Your task to perform on an android device: delete browsing data in the chrome app Image 0: 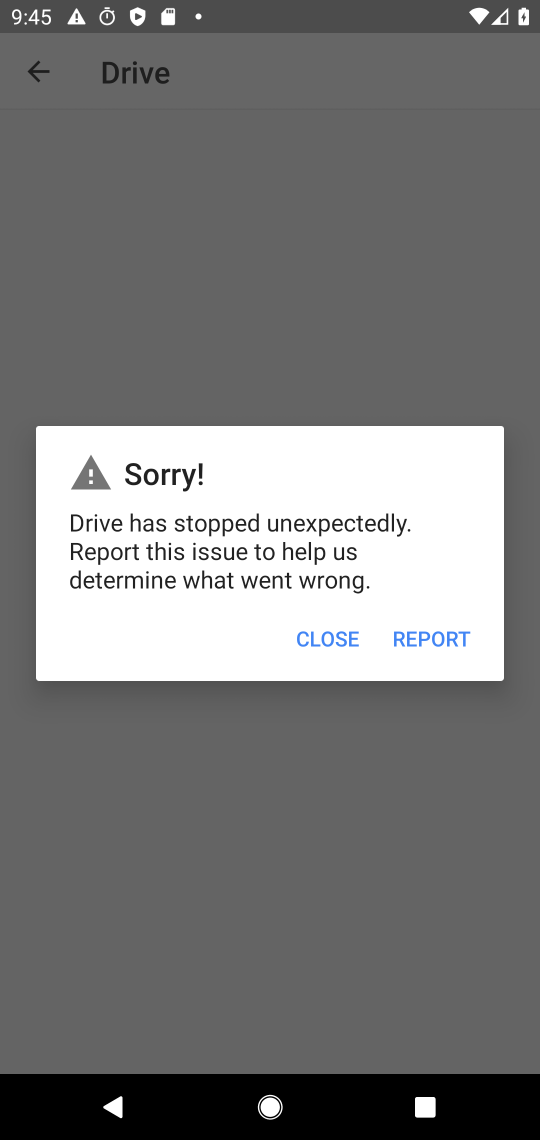
Step 0: press home button
Your task to perform on an android device: delete browsing data in the chrome app Image 1: 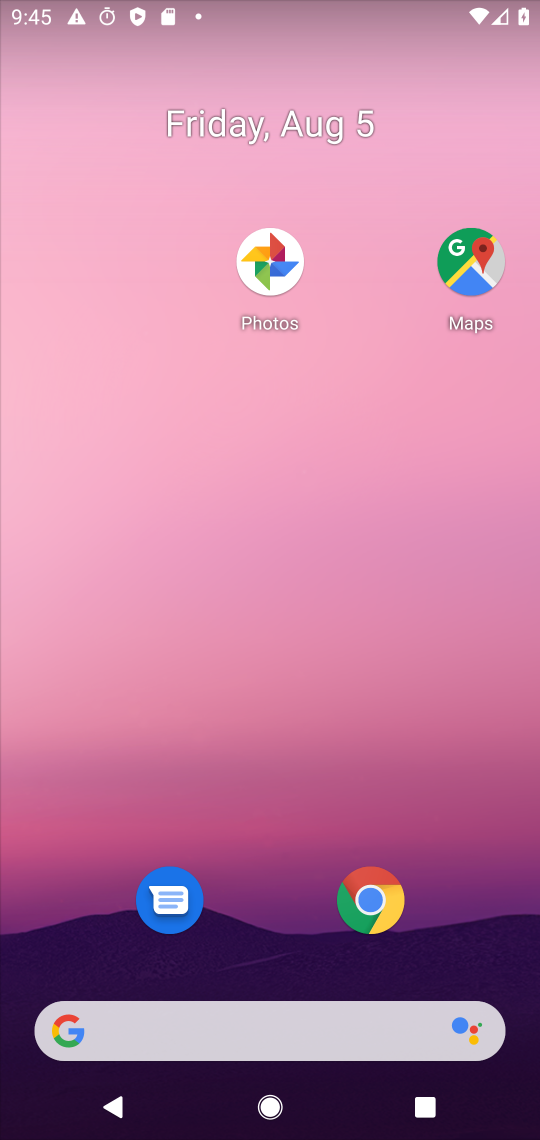
Step 1: click (359, 911)
Your task to perform on an android device: delete browsing data in the chrome app Image 2: 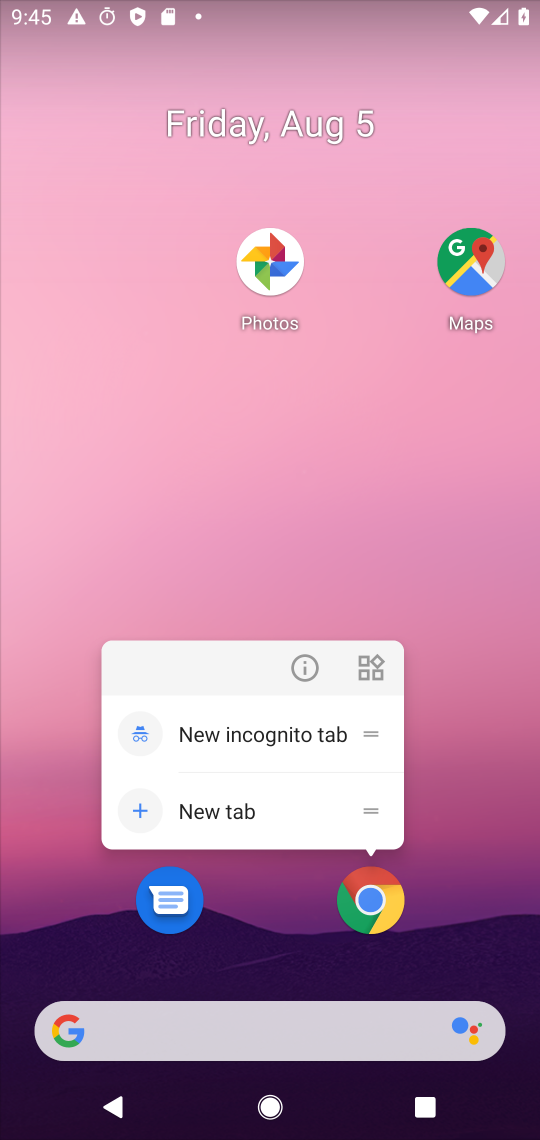
Step 2: click (359, 911)
Your task to perform on an android device: delete browsing data in the chrome app Image 3: 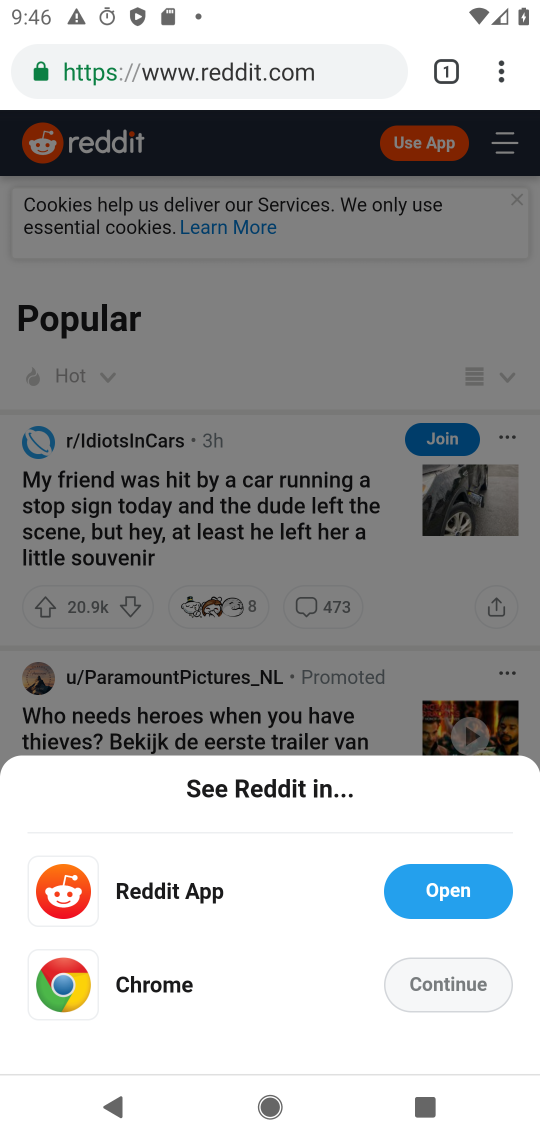
Step 3: click (507, 84)
Your task to perform on an android device: delete browsing data in the chrome app Image 4: 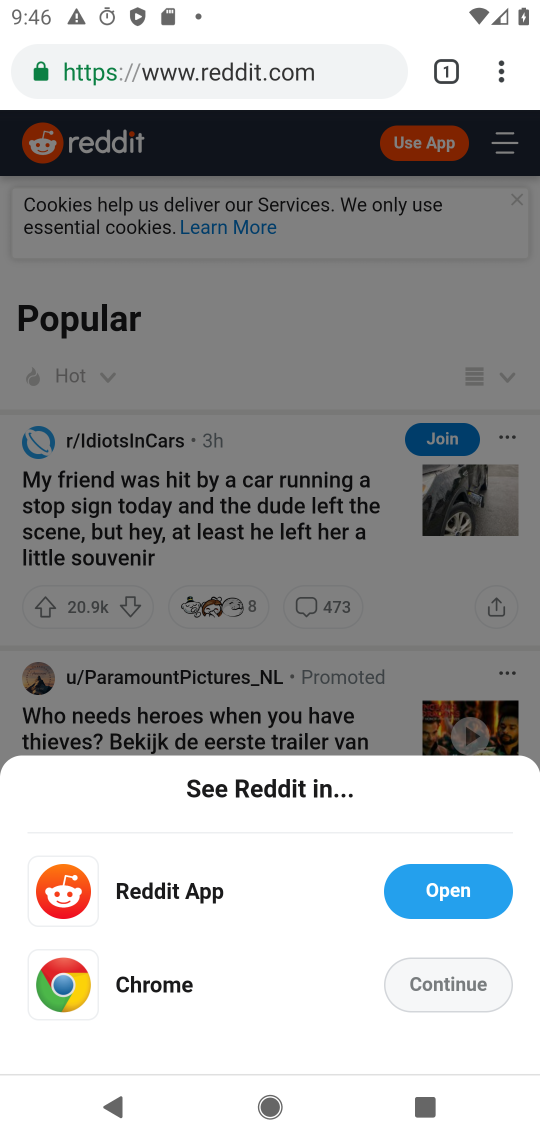
Step 4: click (503, 80)
Your task to perform on an android device: delete browsing data in the chrome app Image 5: 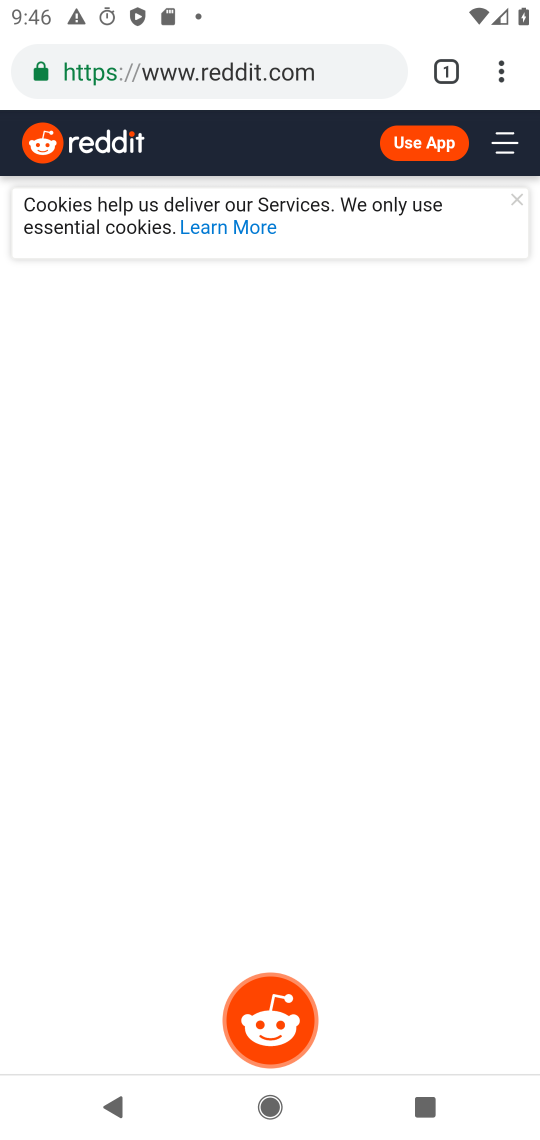
Step 5: click (503, 80)
Your task to perform on an android device: delete browsing data in the chrome app Image 6: 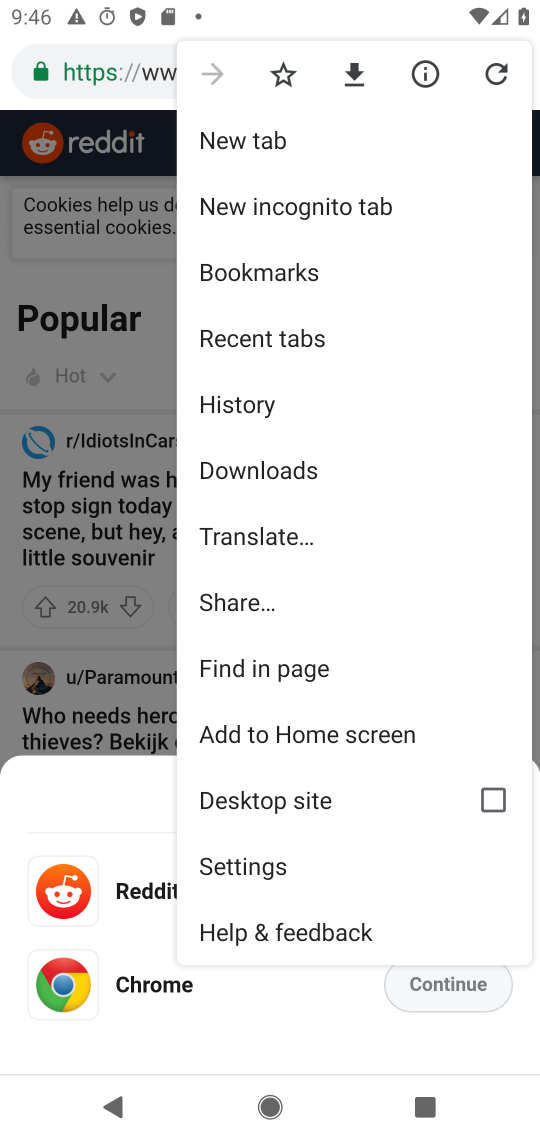
Step 6: click (258, 397)
Your task to perform on an android device: delete browsing data in the chrome app Image 7: 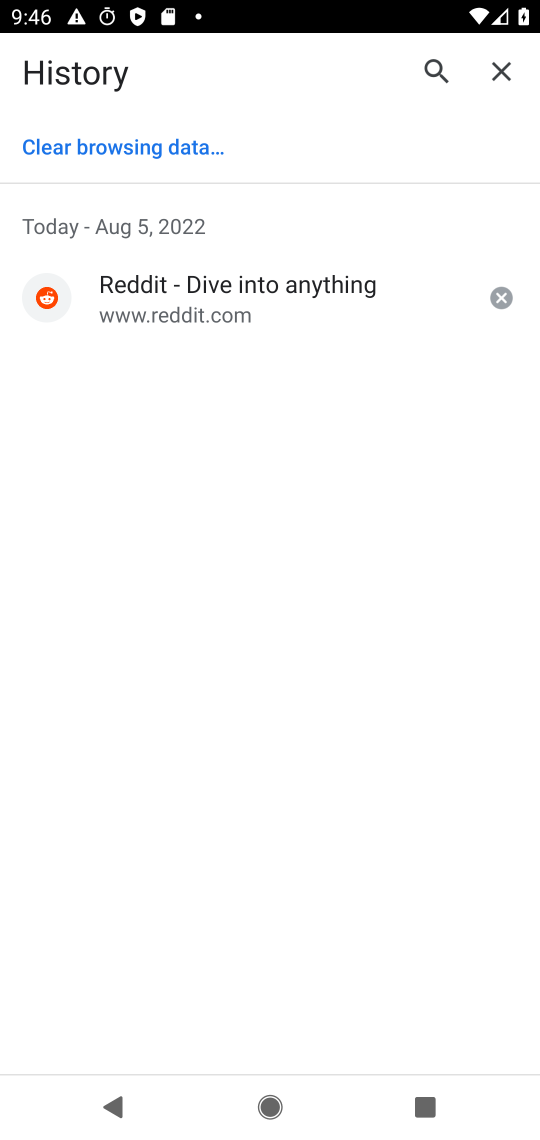
Step 7: click (182, 156)
Your task to perform on an android device: delete browsing data in the chrome app Image 8: 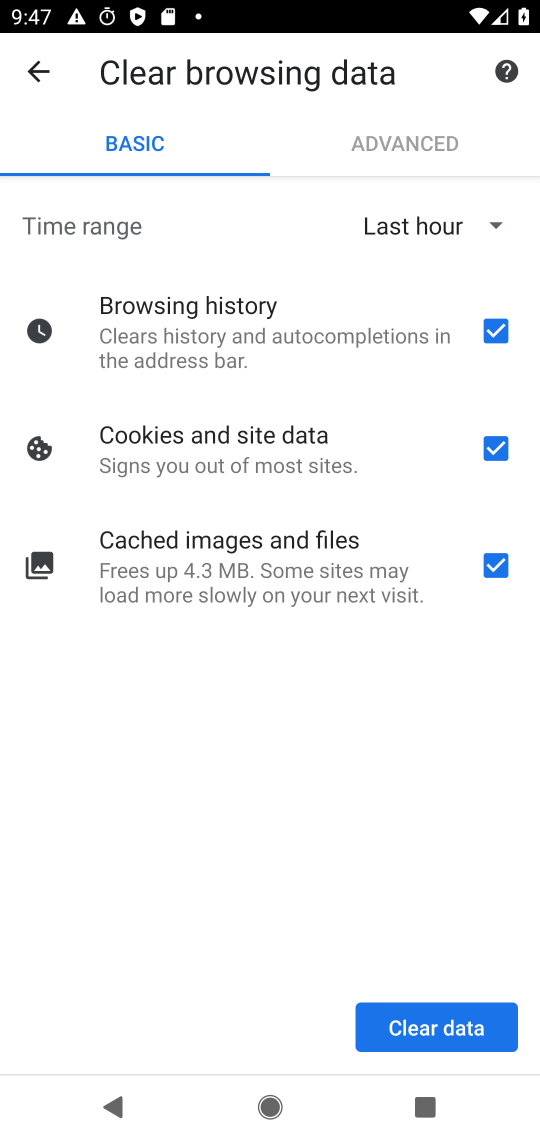
Step 8: click (498, 560)
Your task to perform on an android device: delete browsing data in the chrome app Image 9: 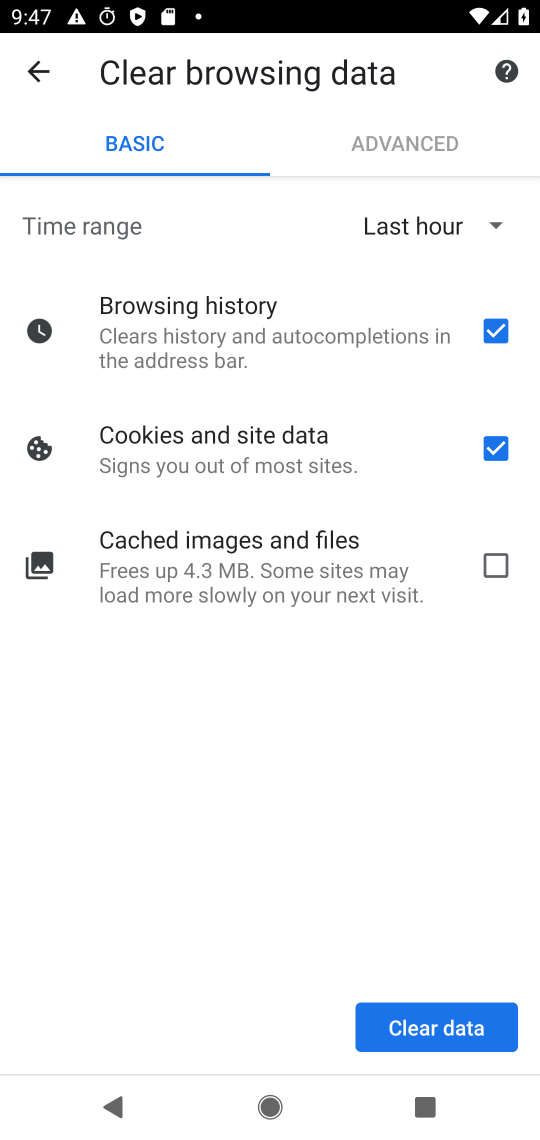
Step 9: click (446, 1036)
Your task to perform on an android device: delete browsing data in the chrome app Image 10: 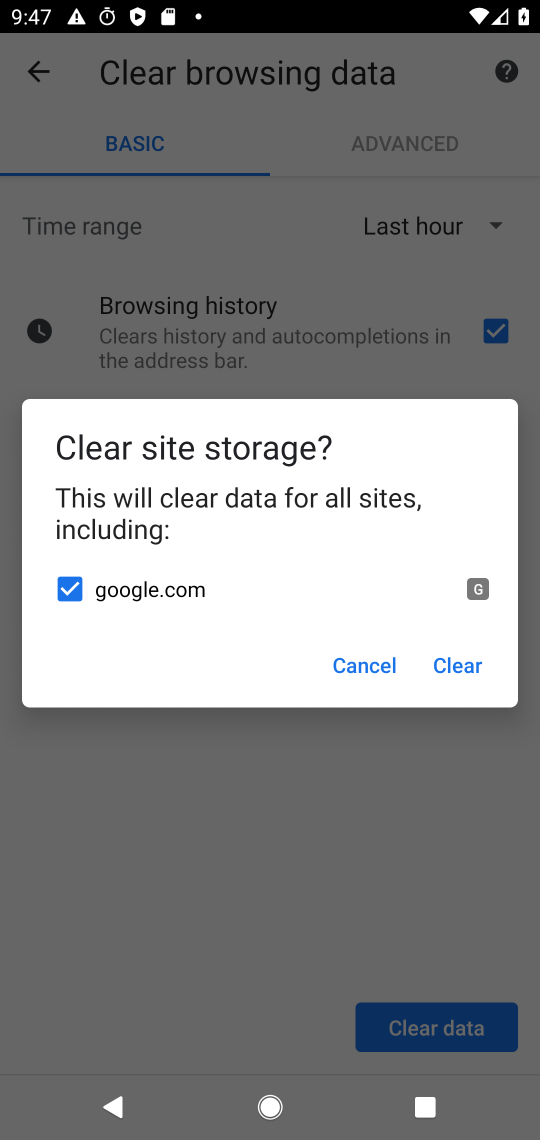
Step 10: click (474, 690)
Your task to perform on an android device: delete browsing data in the chrome app Image 11: 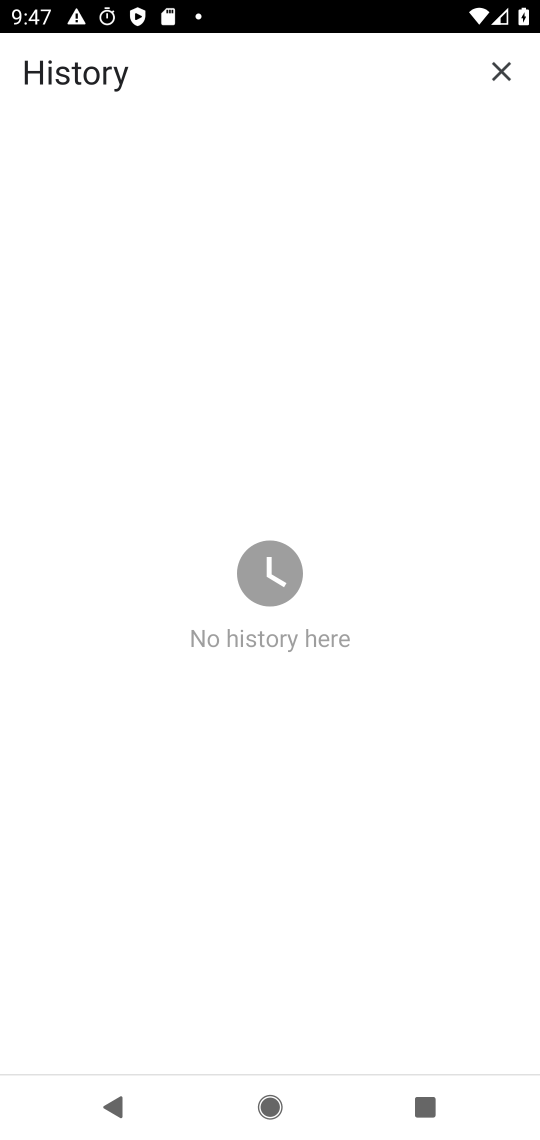
Step 11: task complete